Your task to perform on an android device: Open the calendar and show me this week's events Image 0: 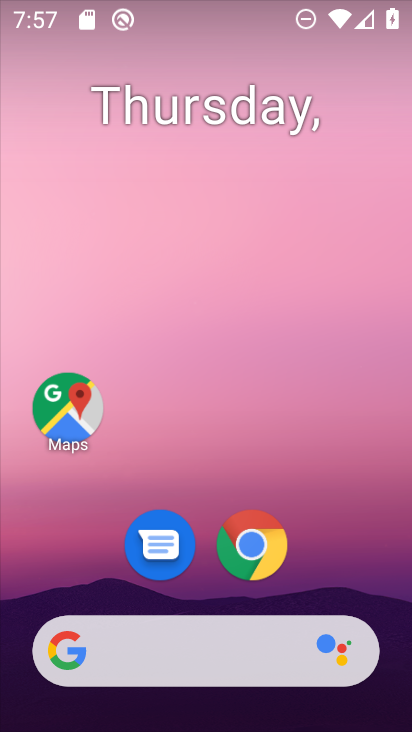
Step 0: drag from (356, 545) to (262, 21)
Your task to perform on an android device: Open the calendar and show me this week's events Image 1: 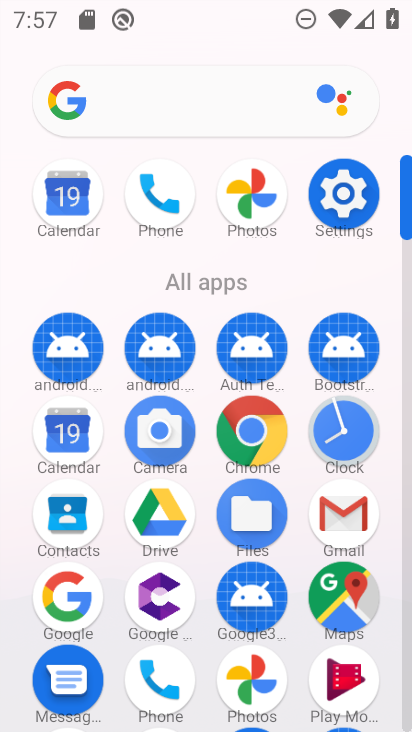
Step 1: click (68, 433)
Your task to perform on an android device: Open the calendar and show me this week's events Image 2: 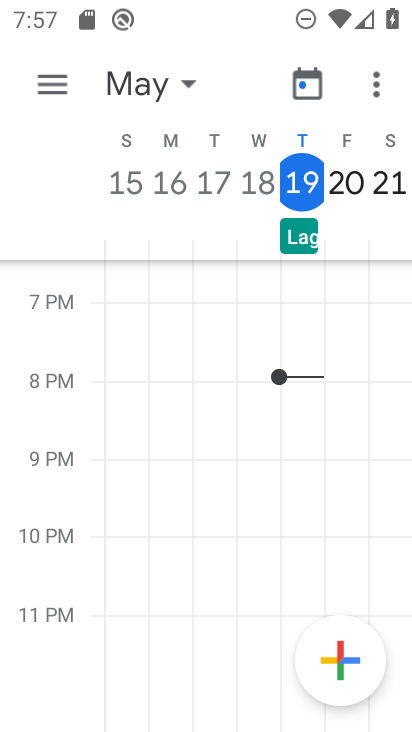
Step 2: click (307, 86)
Your task to perform on an android device: Open the calendar and show me this week's events Image 3: 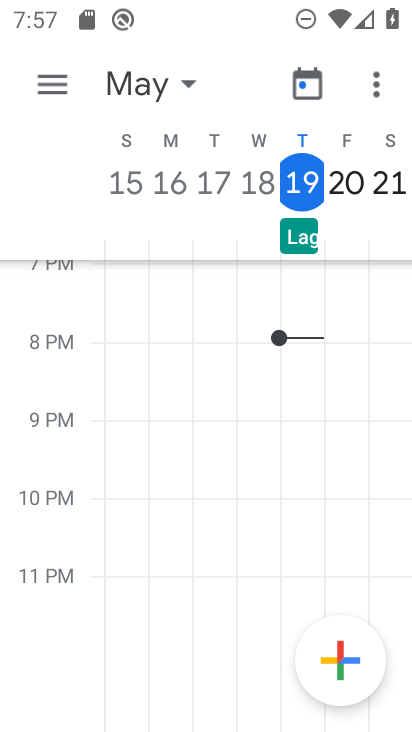
Step 3: click (47, 88)
Your task to perform on an android device: Open the calendar and show me this week's events Image 4: 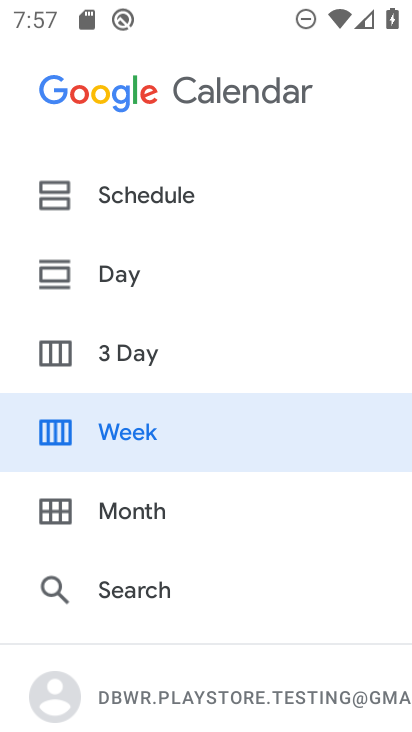
Step 4: click (120, 189)
Your task to perform on an android device: Open the calendar and show me this week's events Image 5: 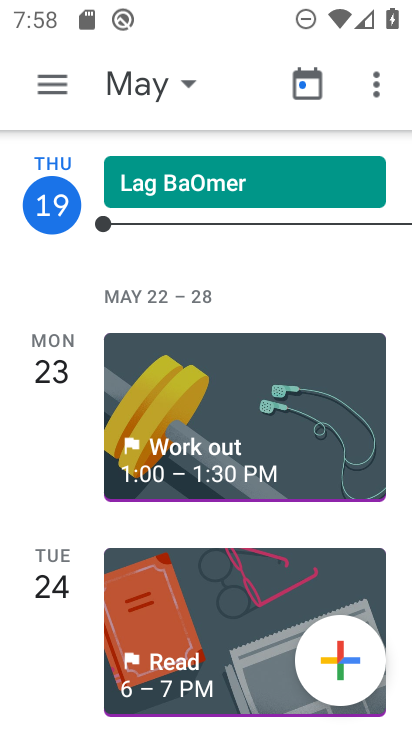
Step 5: task complete